Your task to perform on an android device: open the mobile data screen to see how much data has been used Image 0: 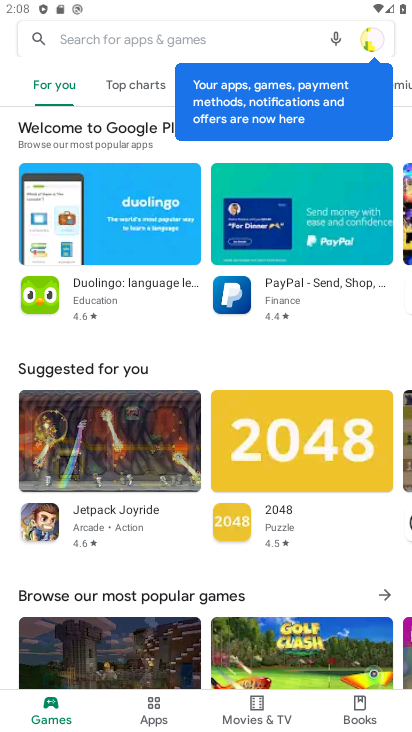
Step 0: drag from (296, 4) to (282, 635)
Your task to perform on an android device: open the mobile data screen to see how much data has been used Image 1: 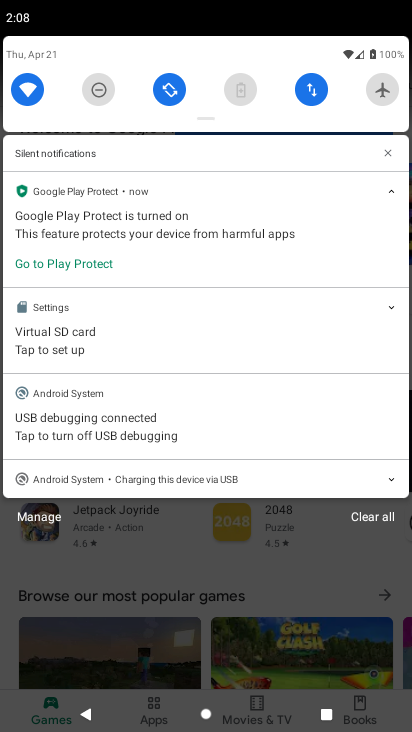
Step 1: click (311, 97)
Your task to perform on an android device: open the mobile data screen to see how much data has been used Image 2: 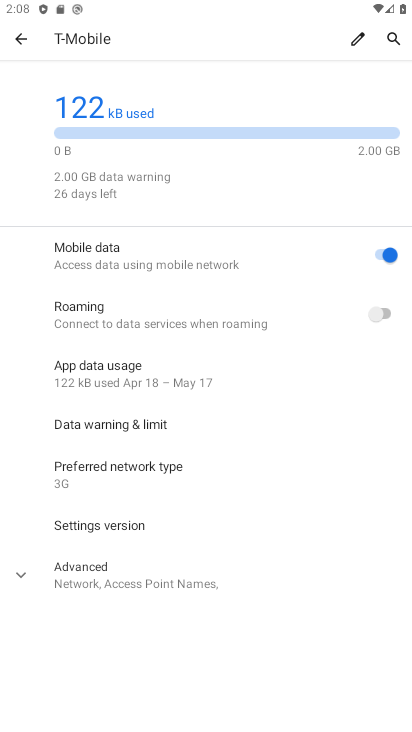
Step 2: click (215, 114)
Your task to perform on an android device: open the mobile data screen to see how much data has been used Image 3: 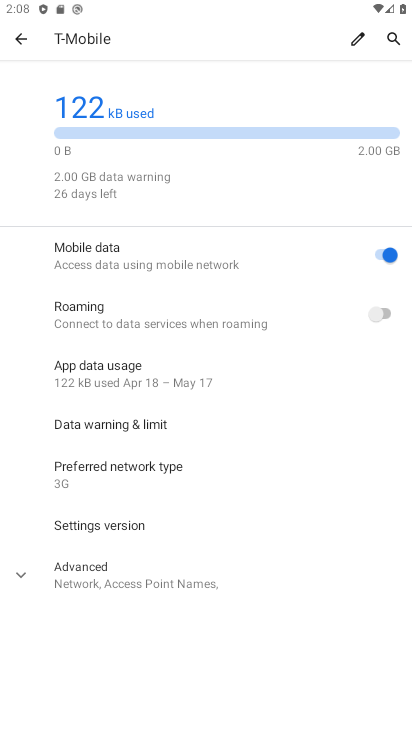
Step 3: task complete